Your task to perform on an android device: show emergency info Image 0: 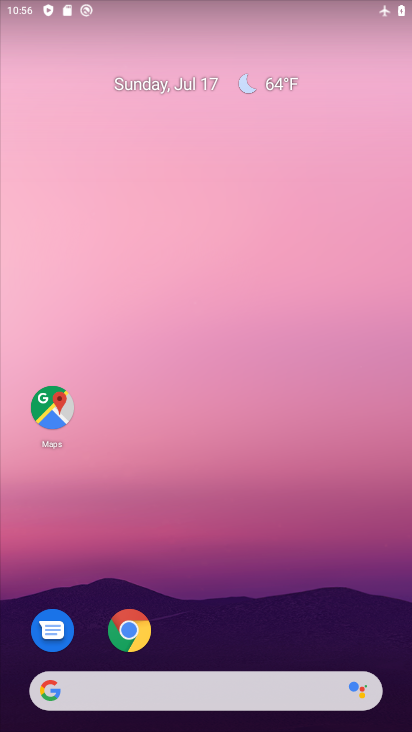
Step 0: drag from (359, 630) to (277, 130)
Your task to perform on an android device: show emergency info Image 1: 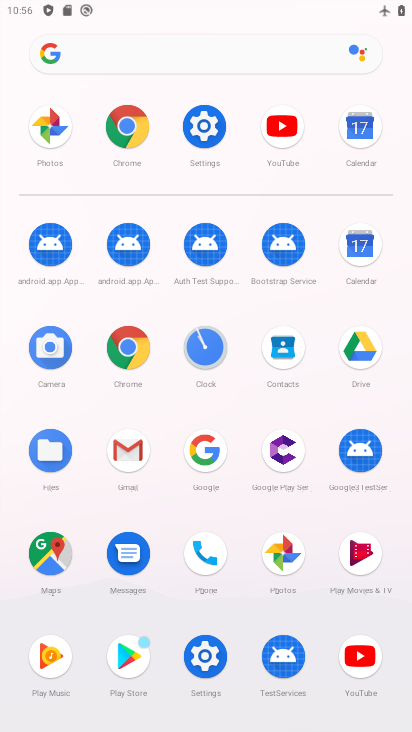
Step 1: click (204, 655)
Your task to perform on an android device: show emergency info Image 2: 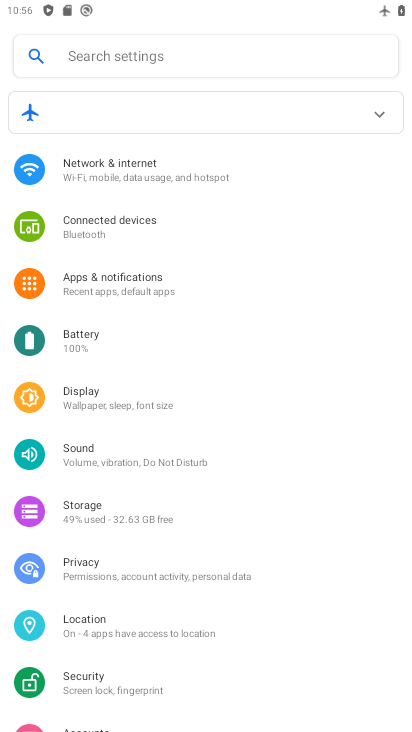
Step 2: drag from (302, 651) to (279, 397)
Your task to perform on an android device: show emergency info Image 3: 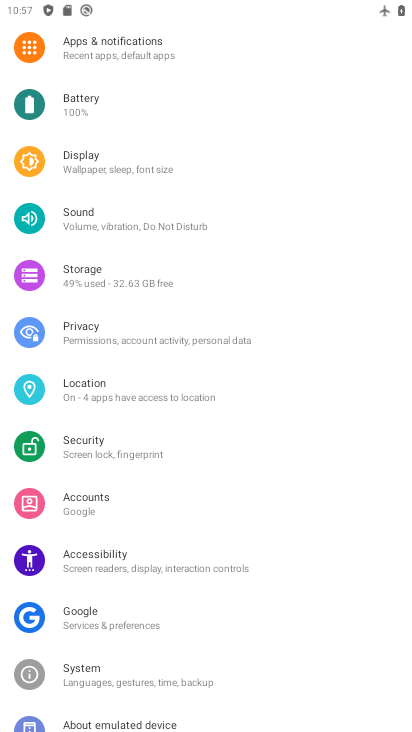
Step 3: drag from (252, 484) to (247, 257)
Your task to perform on an android device: show emergency info Image 4: 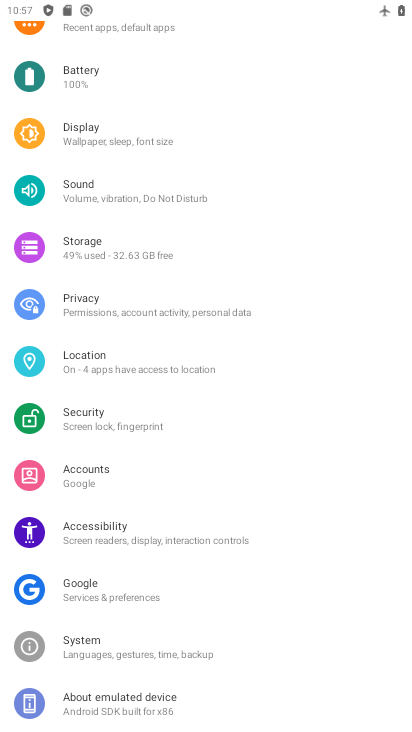
Step 4: click (113, 694)
Your task to perform on an android device: show emergency info Image 5: 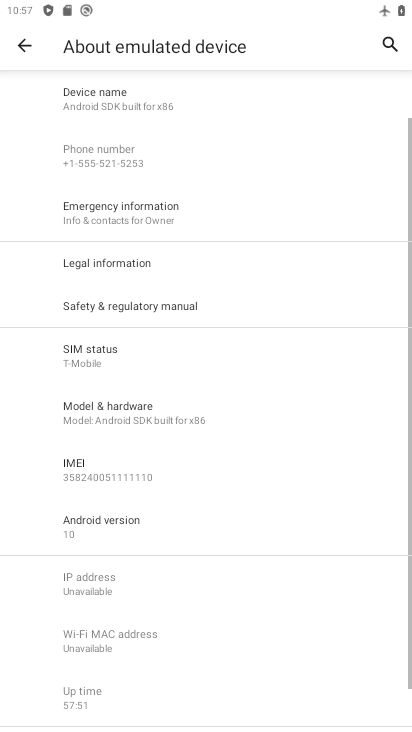
Step 5: click (116, 214)
Your task to perform on an android device: show emergency info Image 6: 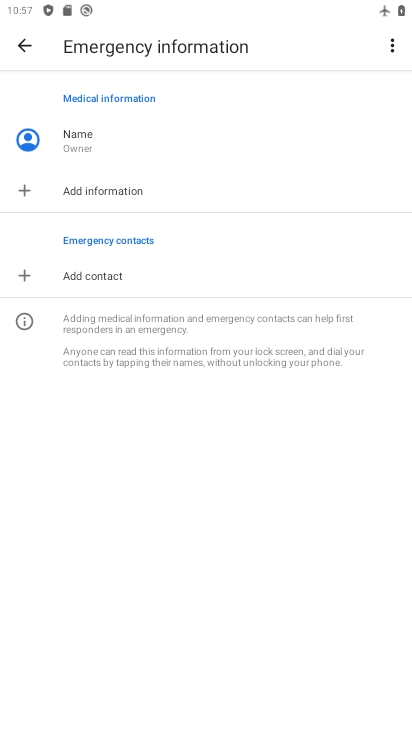
Step 6: task complete